Your task to perform on an android device: add a label to a message in the gmail app Image 0: 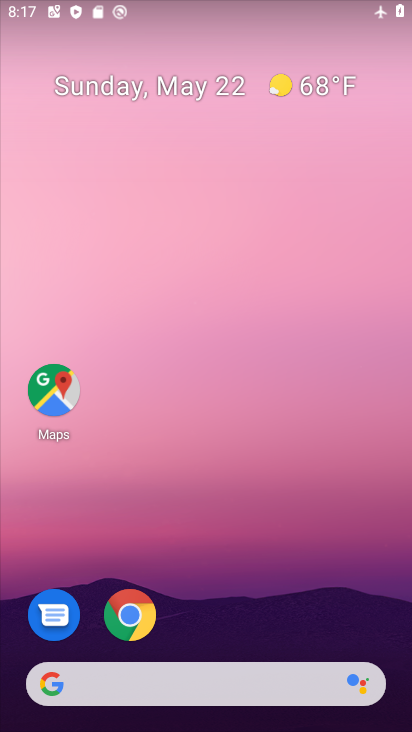
Step 0: drag from (240, 653) to (201, 47)
Your task to perform on an android device: add a label to a message in the gmail app Image 1: 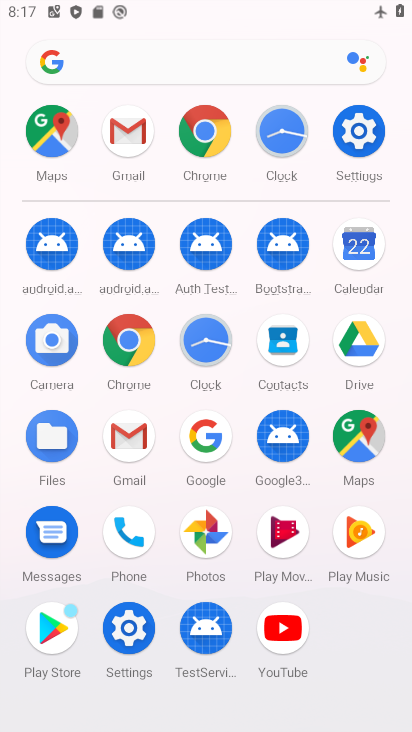
Step 1: click (121, 452)
Your task to perform on an android device: add a label to a message in the gmail app Image 2: 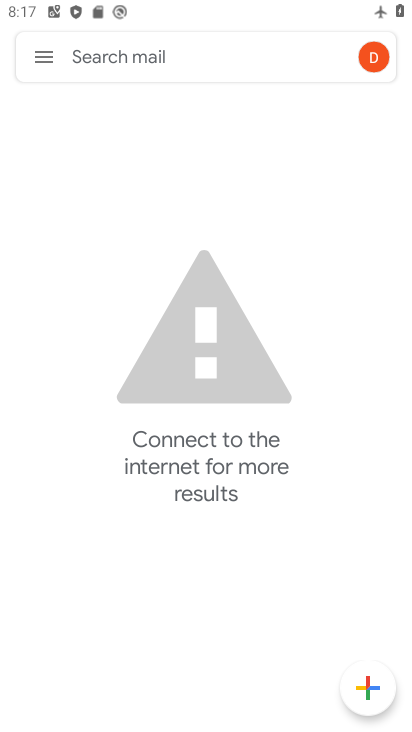
Step 2: task complete